Your task to perform on an android device: toggle sleep mode Image 0: 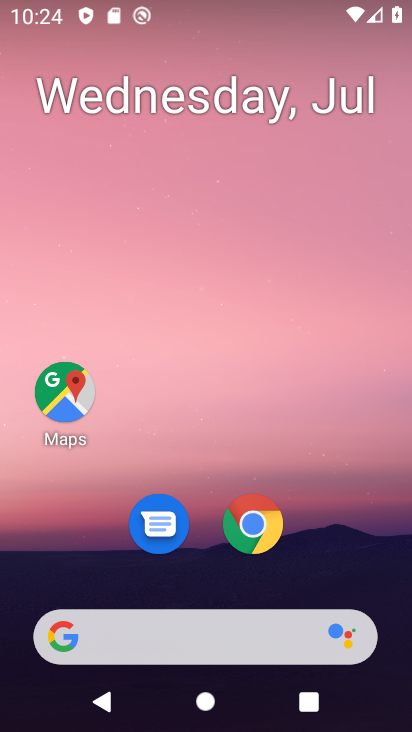
Step 0: drag from (288, 197) to (334, 62)
Your task to perform on an android device: toggle sleep mode Image 1: 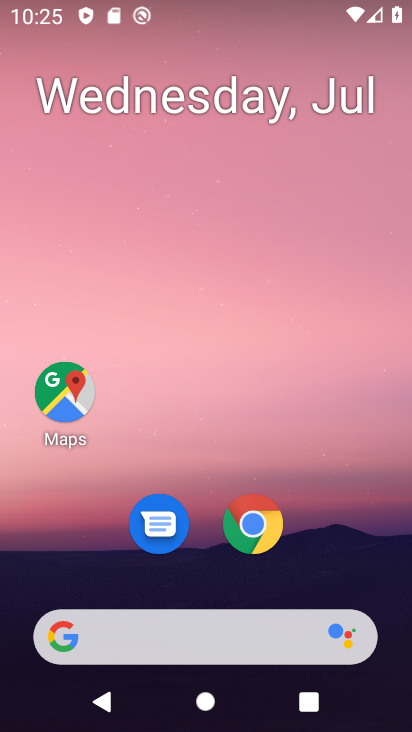
Step 1: drag from (234, 595) to (333, 57)
Your task to perform on an android device: toggle sleep mode Image 2: 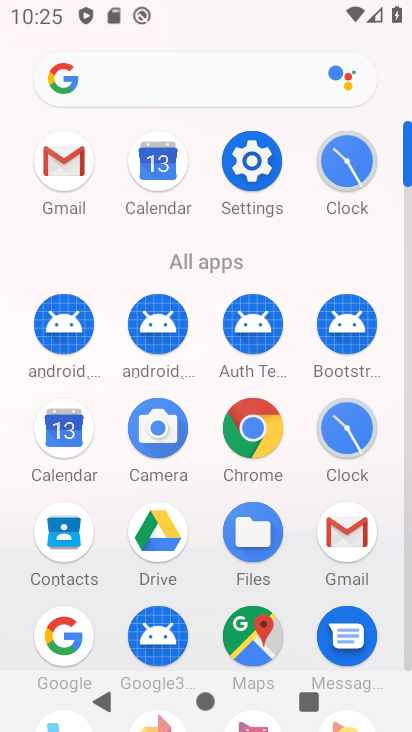
Step 2: click (250, 172)
Your task to perform on an android device: toggle sleep mode Image 3: 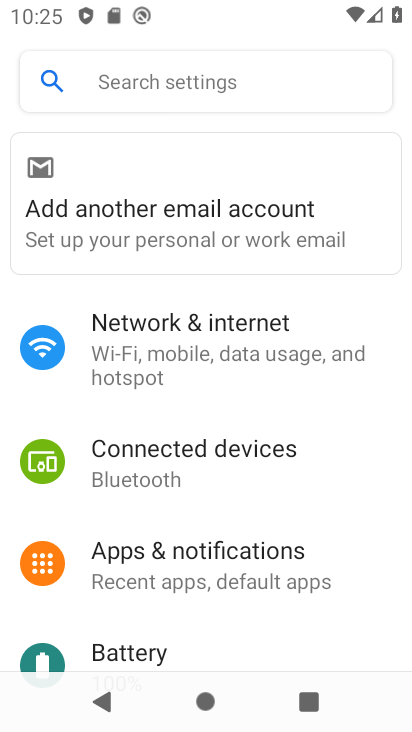
Step 3: drag from (259, 538) to (327, 239)
Your task to perform on an android device: toggle sleep mode Image 4: 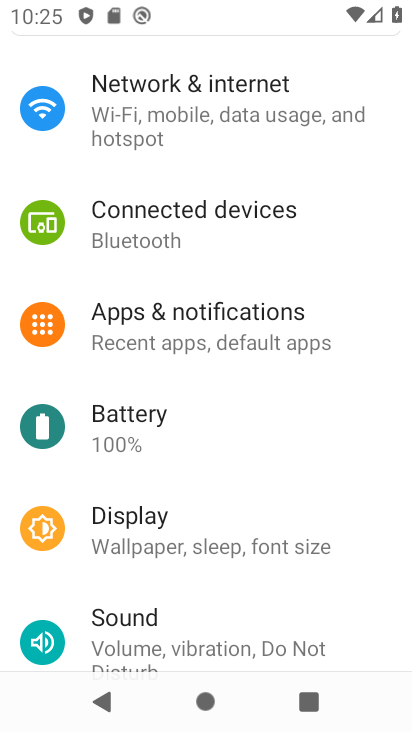
Step 4: click (176, 535)
Your task to perform on an android device: toggle sleep mode Image 5: 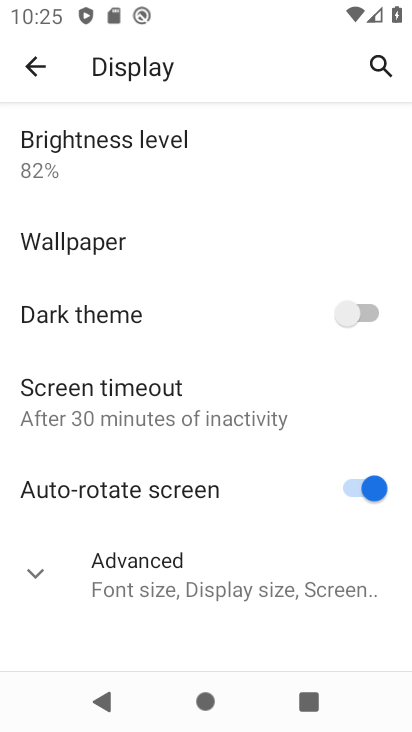
Step 5: click (128, 569)
Your task to perform on an android device: toggle sleep mode Image 6: 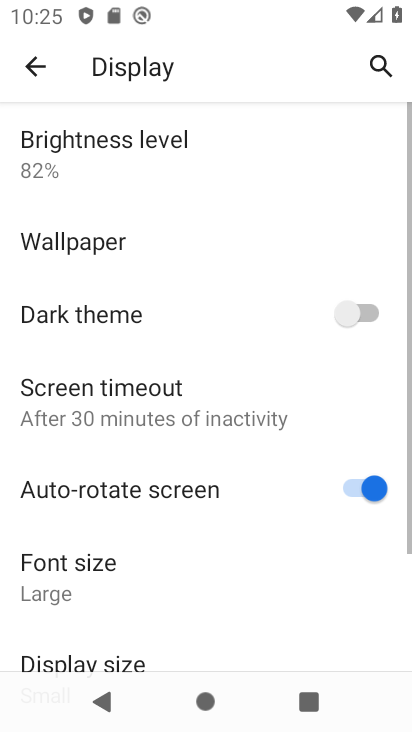
Step 6: task complete